Your task to perform on an android device: set the timer Image 0: 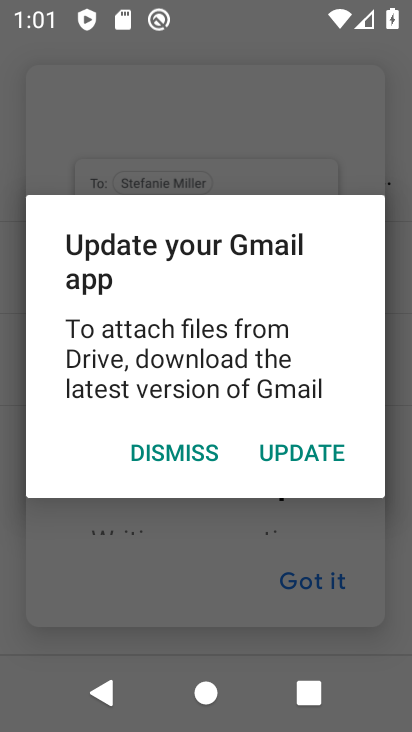
Step 0: click (303, 454)
Your task to perform on an android device: set the timer Image 1: 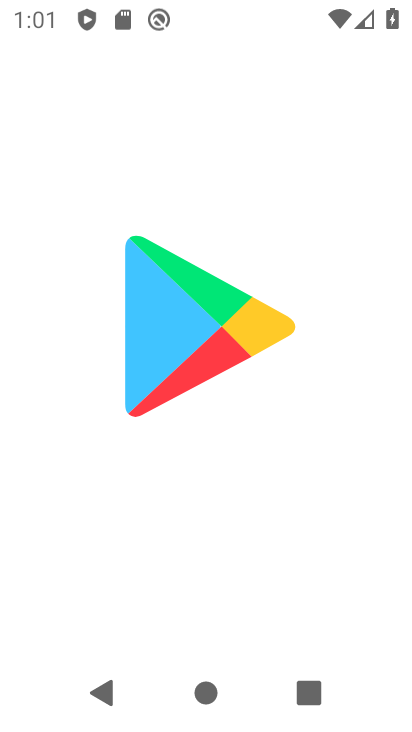
Step 1: press home button
Your task to perform on an android device: set the timer Image 2: 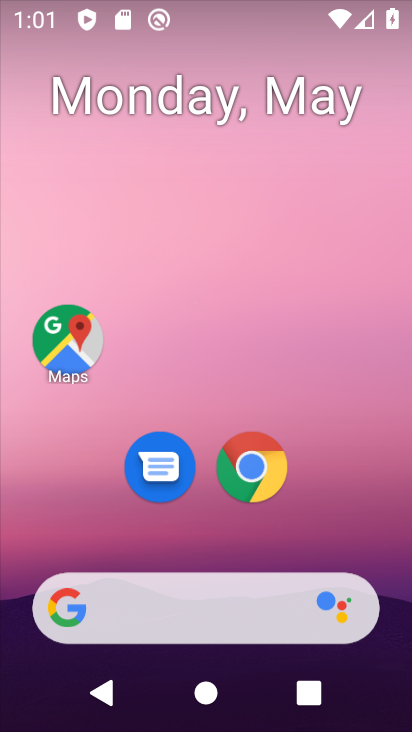
Step 2: drag from (381, 488) to (363, 290)
Your task to perform on an android device: set the timer Image 3: 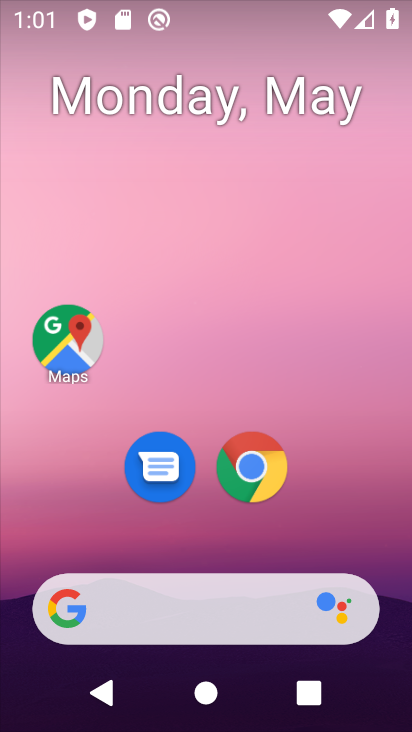
Step 3: drag from (393, 687) to (381, 86)
Your task to perform on an android device: set the timer Image 4: 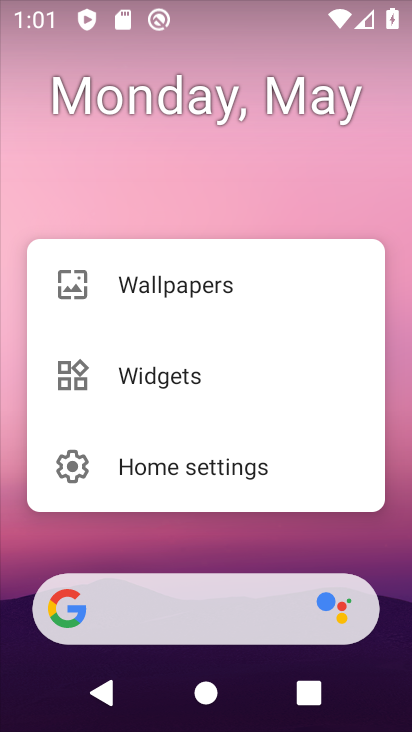
Step 4: press back button
Your task to perform on an android device: set the timer Image 5: 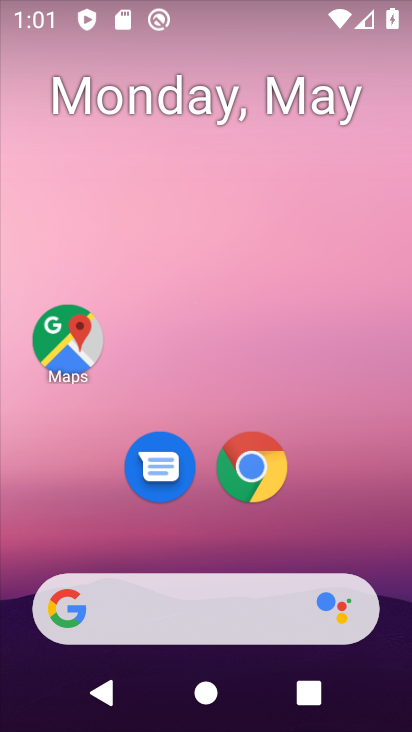
Step 5: drag from (384, 695) to (354, 195)
Your task to perform on an android device: set the timer Image 6: 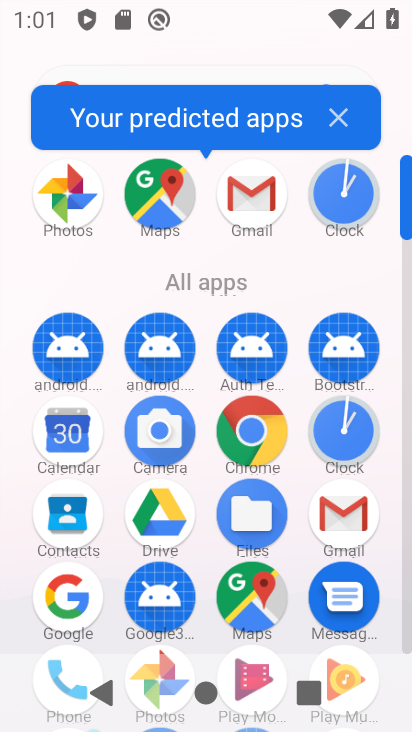
Step 6: click (344, 438)
Your task to perform on an android device: set the timer Image 7: 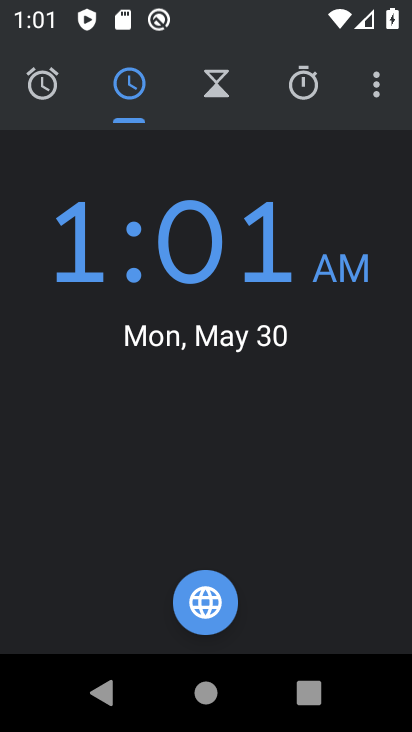
Step 7: click (374, 85)
Your task to perform on an android device: set the timer Image 8: 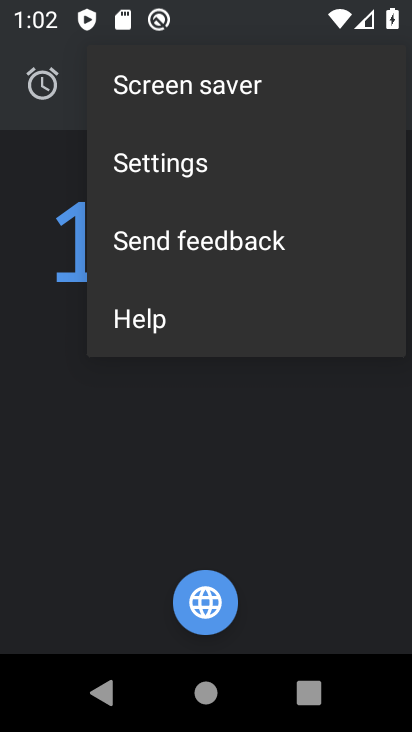
Step 8: click (245, 401)
Your task to perform on an android device: set the timer Image 9: 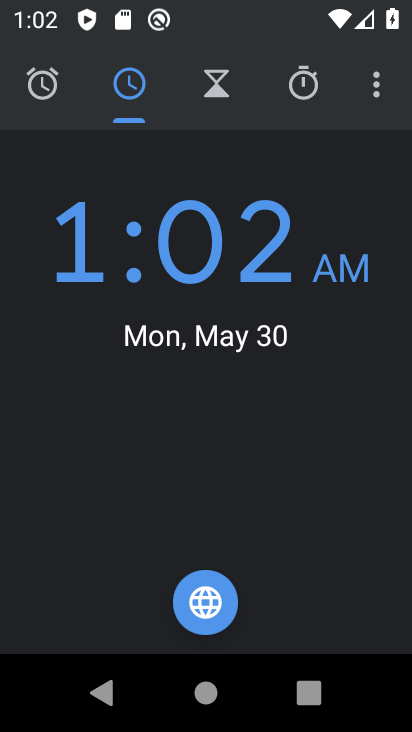
Step 9: click (303, 93)
Your task to perform on an android device: set the timer Image 10: 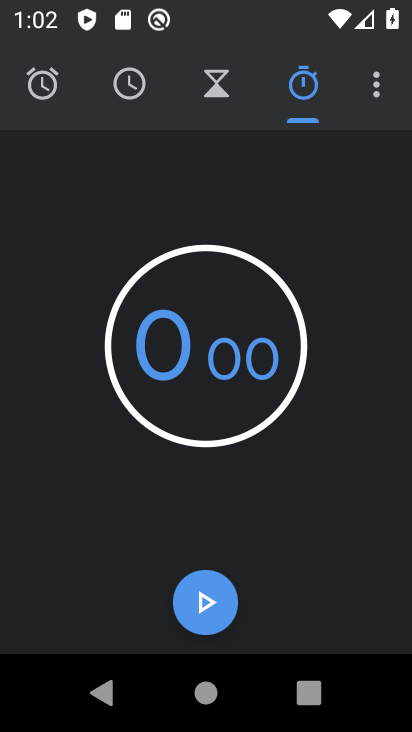
Step 10: click (203, 607)
Your task to perform on an android device: set the timer Image 11: 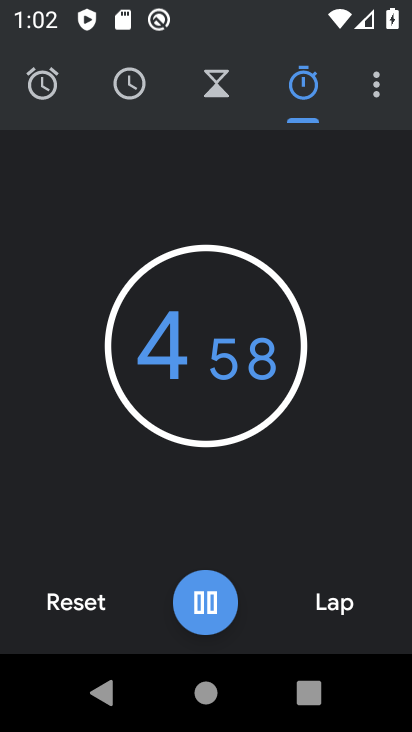
Step 11: task complete